Your task to perform on an android device: Open Google Chrome and open the bookmarks view Image 0: 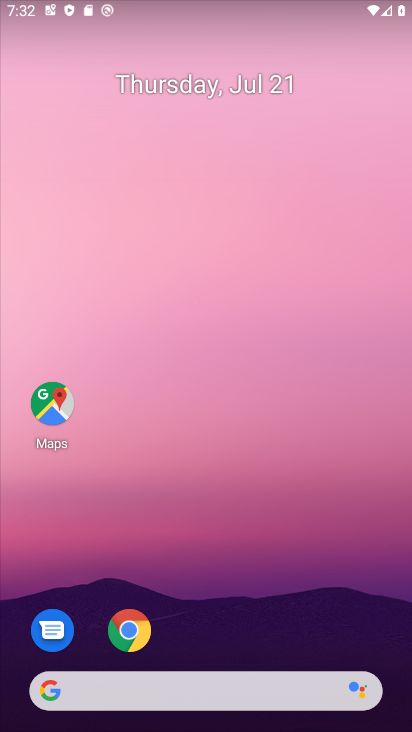
Step 0: click (136, 642)
Your task to perform on an android device: Open Google Chrome and open the bookmarks view Image 1: 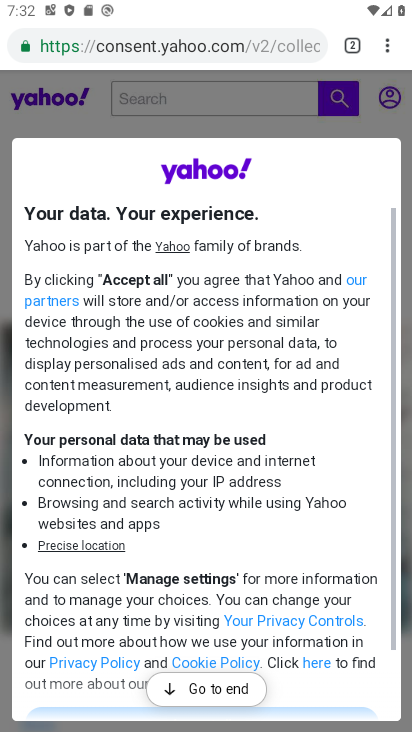
Step 1: click (136, 642)
Your task to perform on an android device: Open Google Chrome and open the bookmarks view Image 2: 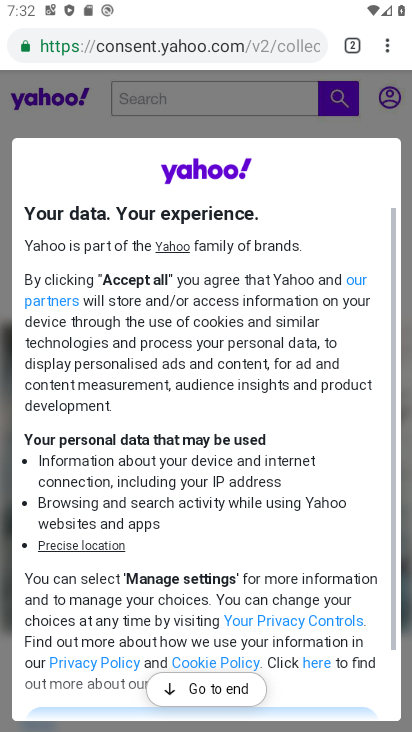
Step 2: click (136, 642)
Your task to perform on an android device: Open Google Chrome and open the bookmarks view Image 3: 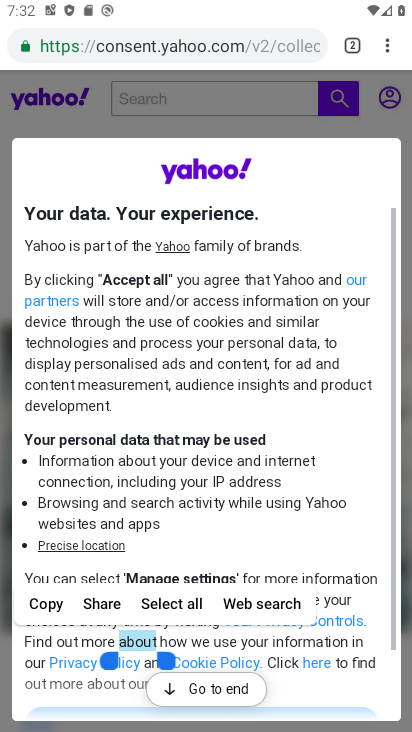
Step 3: click (385, 42)
Your task to perform on an android device: Open Google Chrome and open the bookmarks view Image 4: 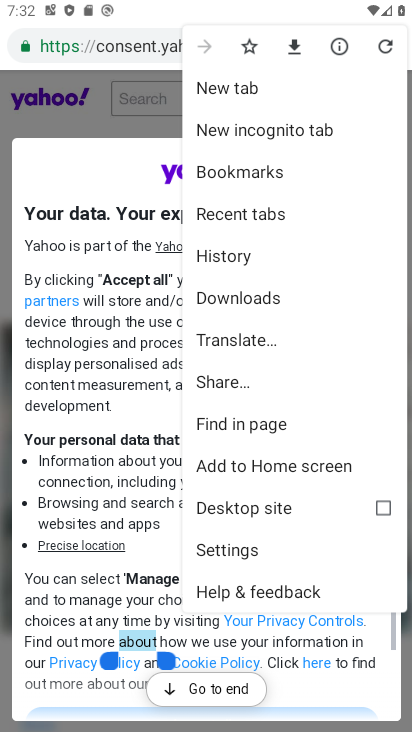
Step 4: click (258, 177)
Your task to perform on an android device: Open Google Chrome and open the bookmarks view Image 5: 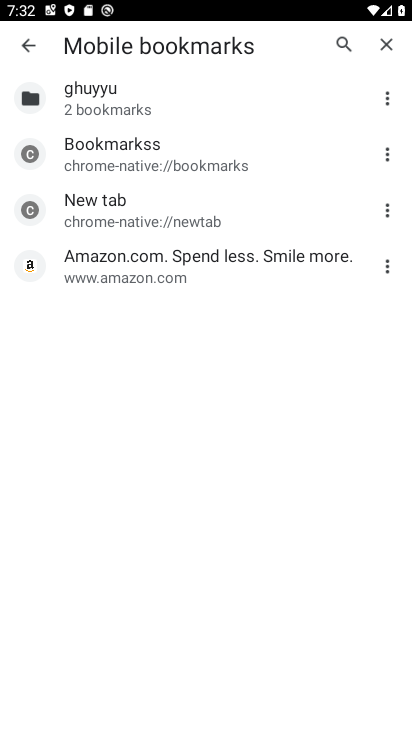
Step 5: click (222, 260)
Your task to perform on an android device: Open Google Chrome and open the bookmarks view Image 6: 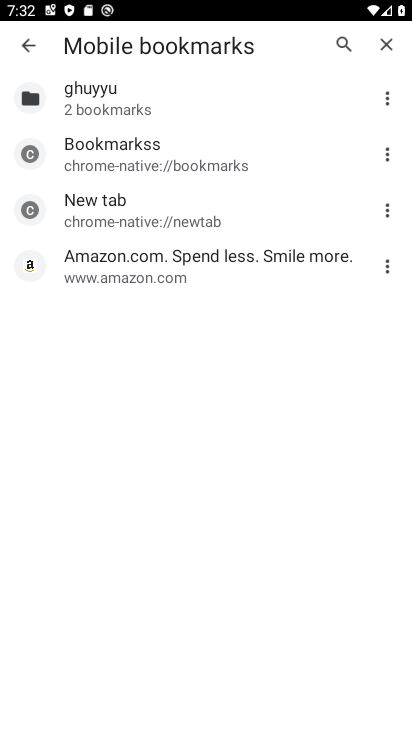
Step 6: click (222, 260)
Your task to perform on an android device: Open Google Chrome and open the bookmarks view Image 7: 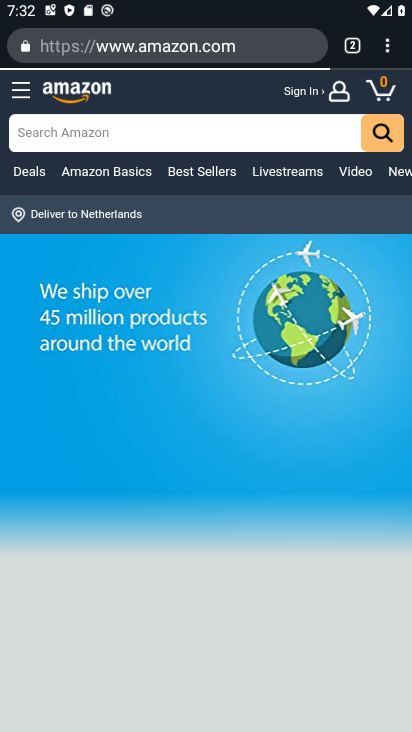
Step 7: task complete